Your task to perform on an android device: Open Google Chrome and open the bookmarks view Image 0: 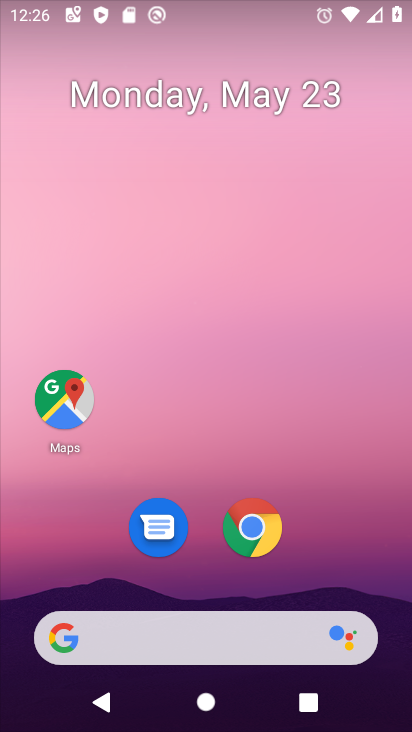
Step 0: click (250, 519)
Your task to perform on an android device: Open Google Chrome and open the bookmarks view Image 1: 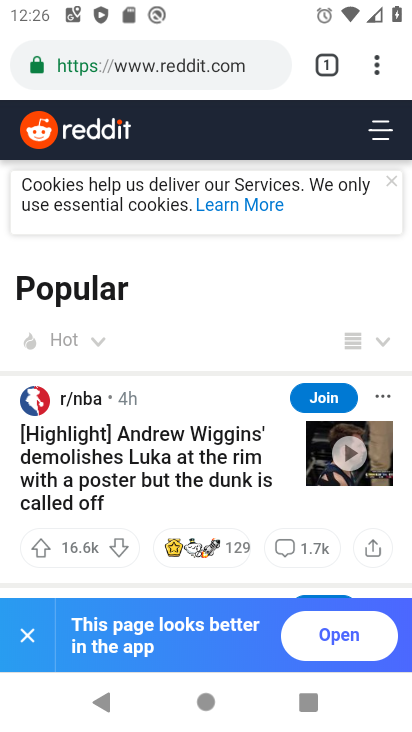
Step 1: click (371, 61)
Your task to perform on an android device: Open Google Chrome and open the bookmarks view Image 2: 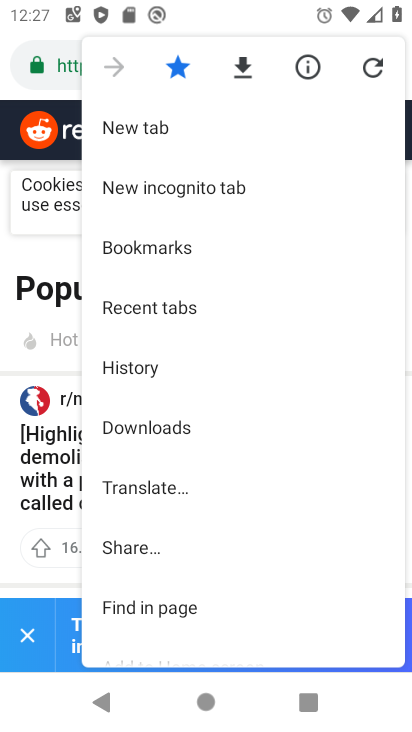
Step 2: drag from (226, 504) to (224, 373)
Your task to perform on an android device: Open Google Chrome and open the bookmarks view Image 3: 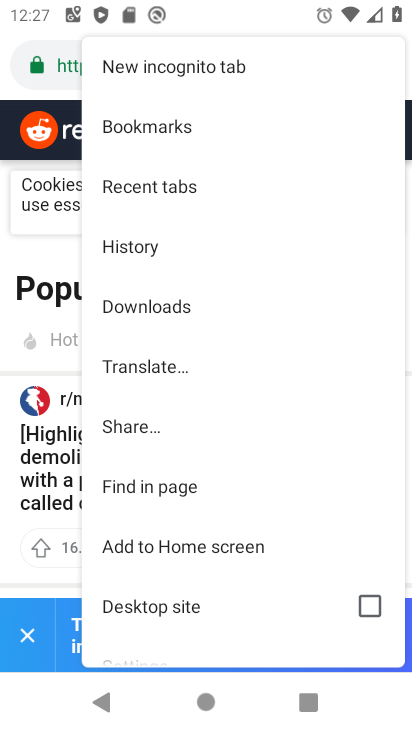
Step 3: click (193, 123)
Your task to perform on an android device: Open Google Chrome and open the bookmarks view Image 4: 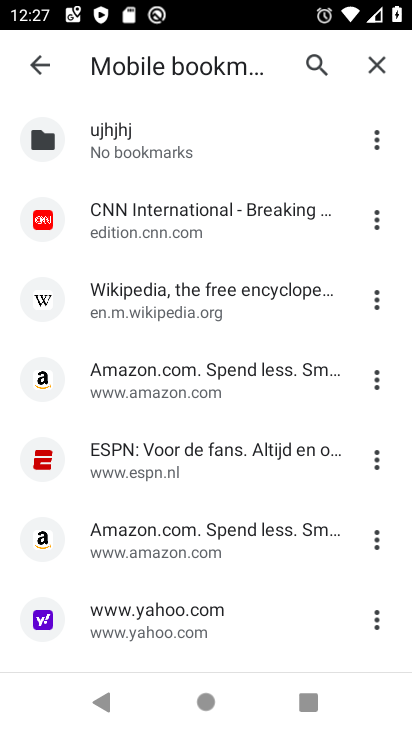
Step 4: click (234, 200)
Your task to perform on an android device: Open Google Chrome and open the bookmarks view Image 5: 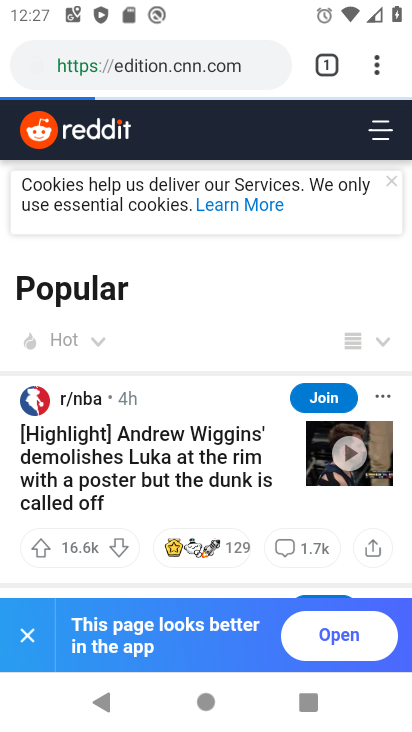
Step 5: task complete